Your task to perform on an android device: install app "Duolingo: language lessons" Image 0: 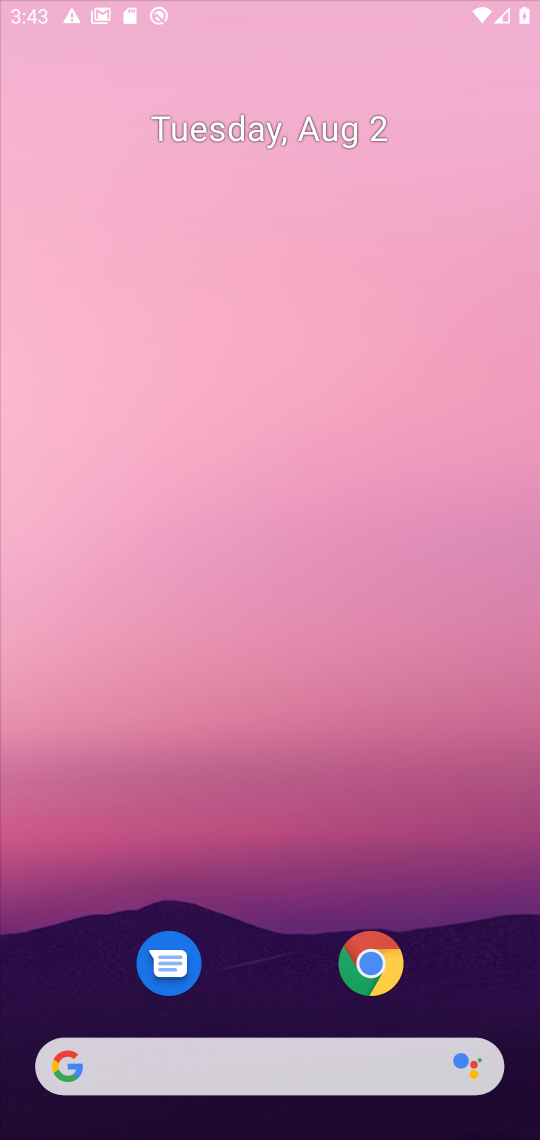
Step 0: press home button
Your task to perform on an android device: install app "Duolingo: language lessons" Image 1: 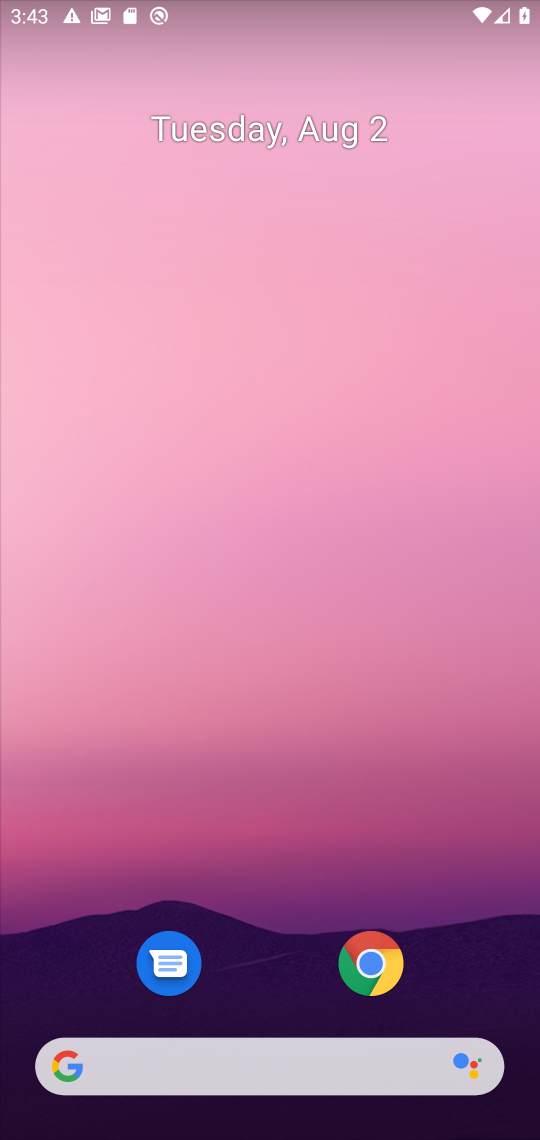
Step 1: drag from (243, 1027) to (163, 250)
Your task to perform on an android device: install app "Duolingo: language lessons" Image 2: 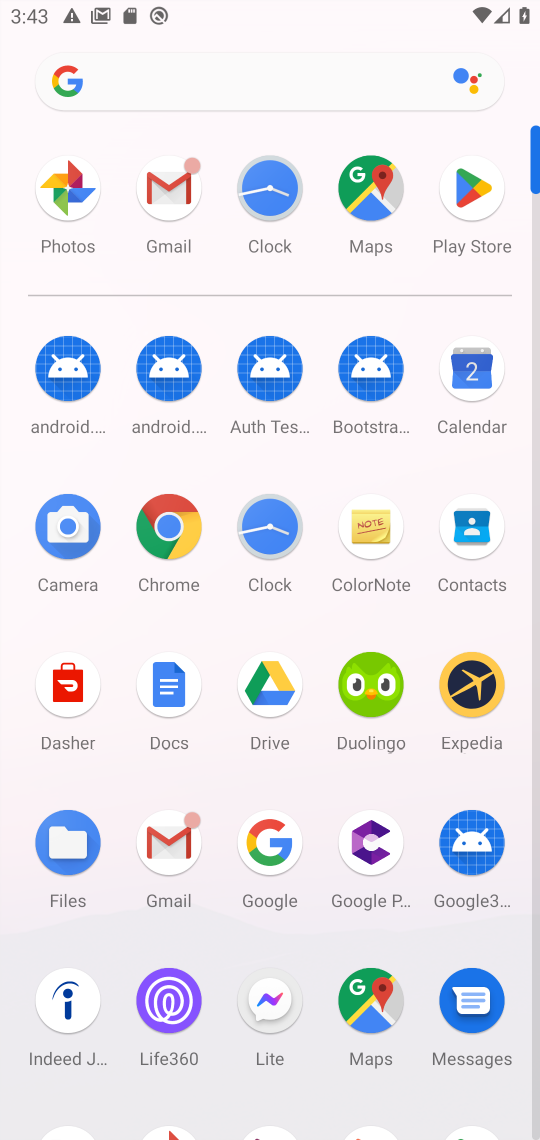
Step 2: click (470, 196)
Your task to perform on an android device: install app "Duolingo: language lessons" Image 3: 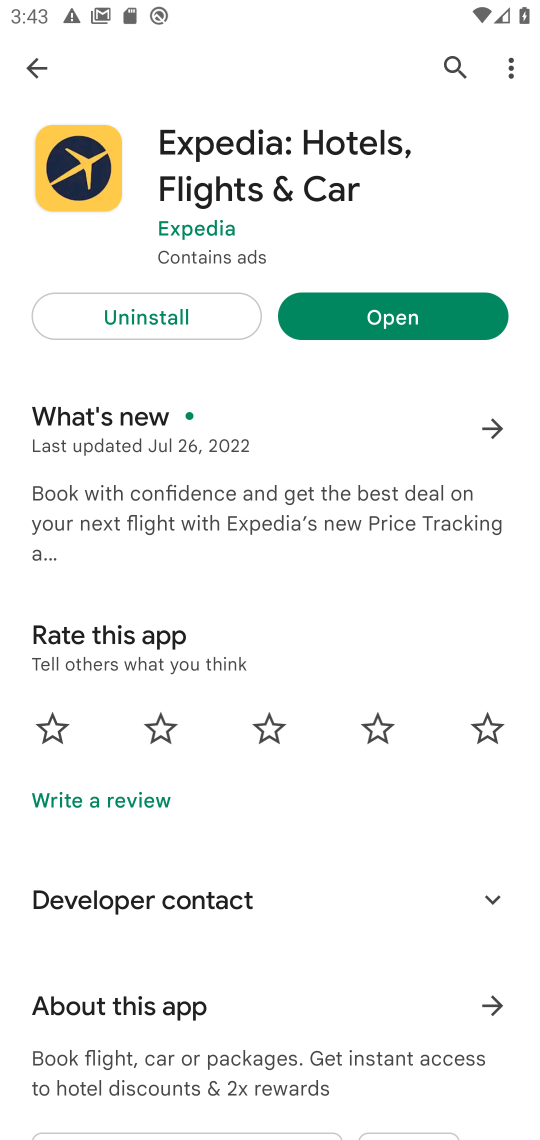
Step 3: click (37, 70)
Your task to perform on an android device: install app "Duolingo: language lessons" Image 4: 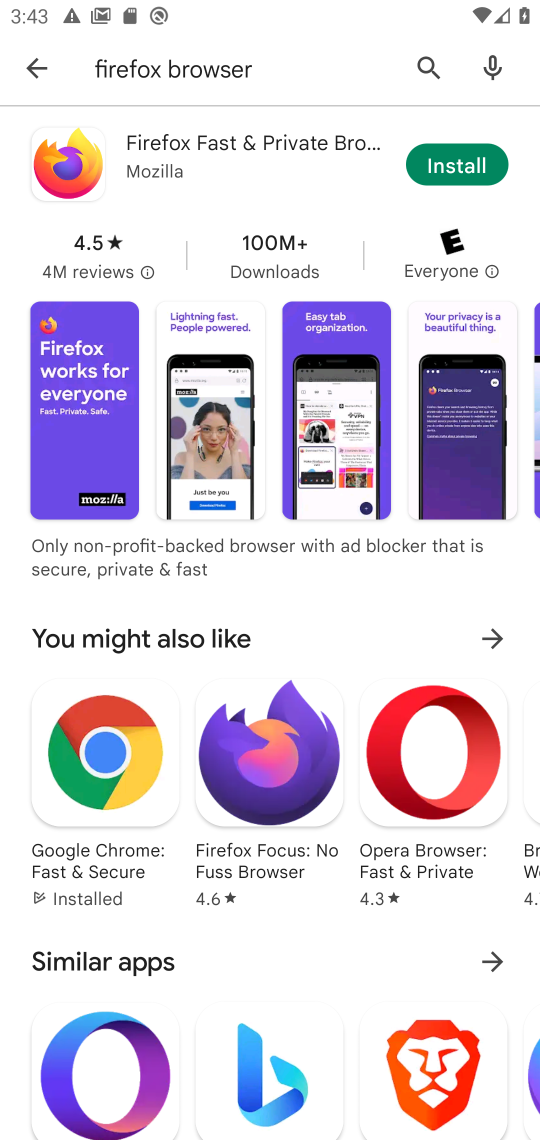
Step 4: click (424, 71)
Your task to perform on an android device: install app "Duolingo: language lessons" Image 5: 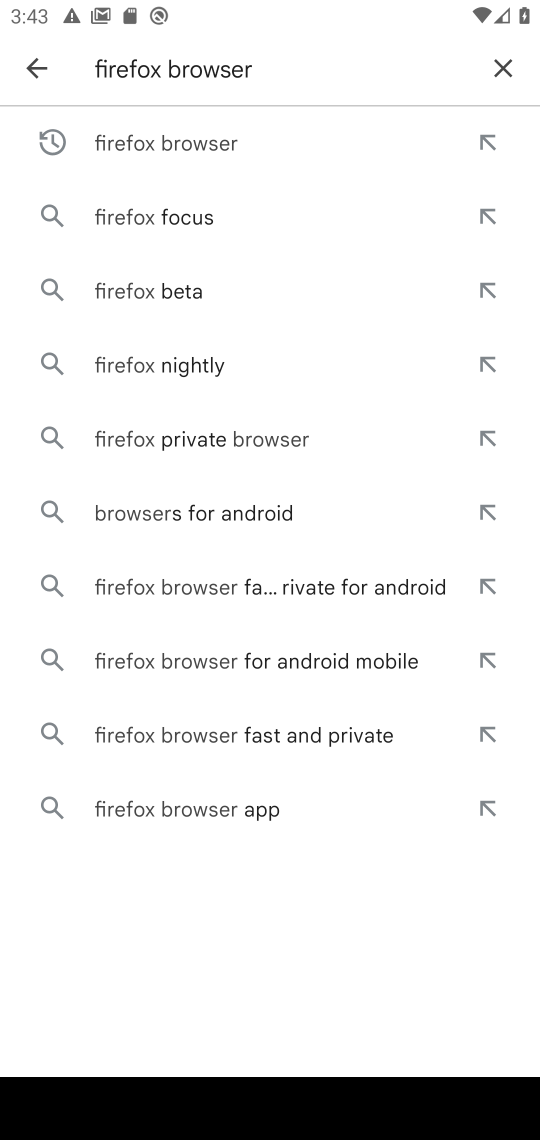
Step 5: click (504, 59)
Your task to perform on an android device: install app "Duolingo: language lessons" Image 6: 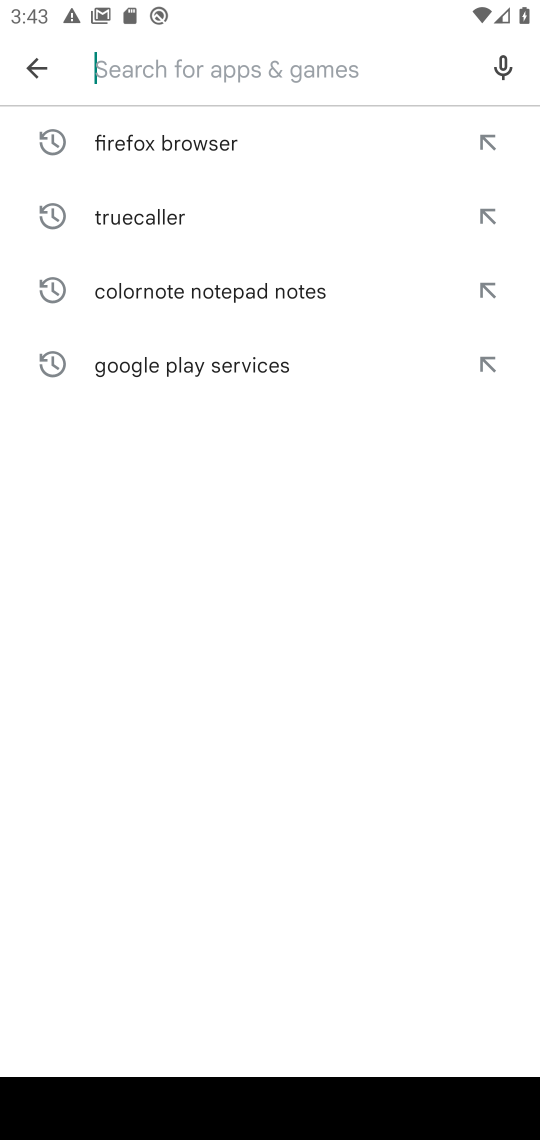
Step 6: type "Duolingo: language lessons"
Your task to perform on an android device: install app "Duolingo: language lessons" Image 7: 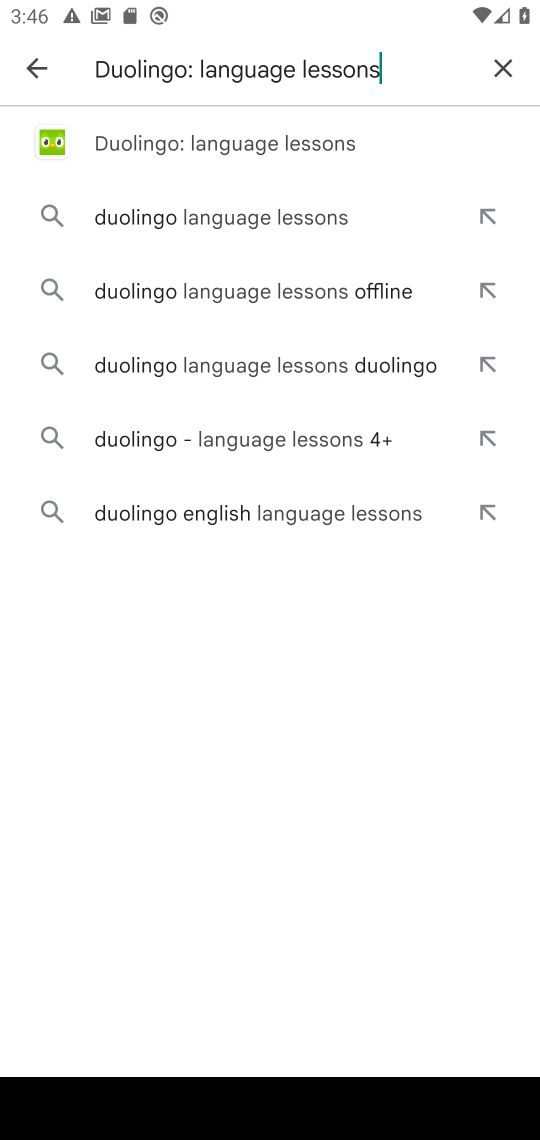
Step 7: click (179, 146)
Your task to perform on an android device: install app "Duolingo: language lessons" Image 8: 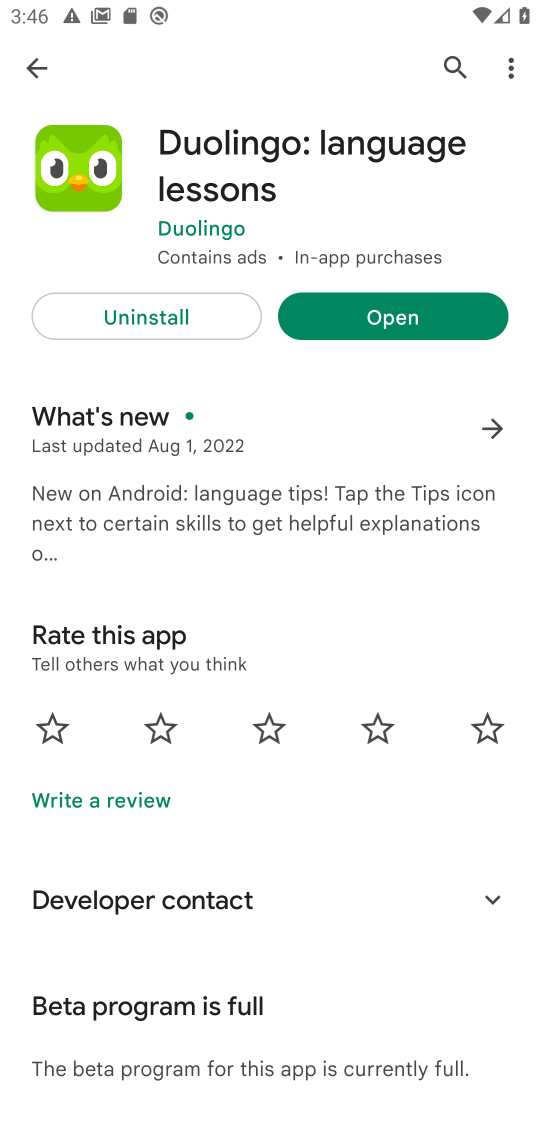
Step 8: click (402, 321)
Your task to perform on an android device: install app "Duolingo: language lessons" Image 9: 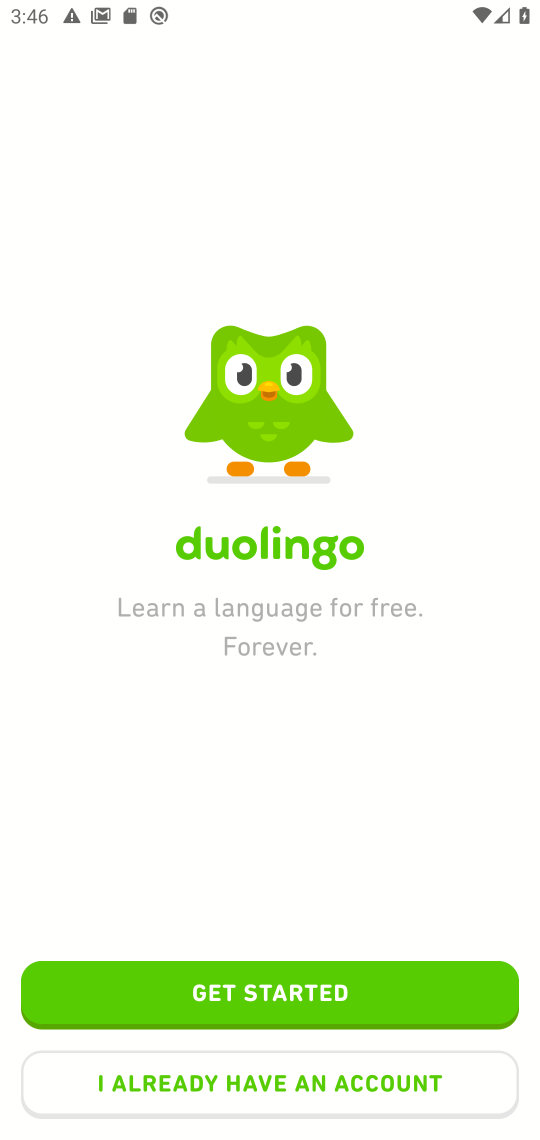
Step 9: task complete